Your task to perform on an android device: turn on wifi Image 0: 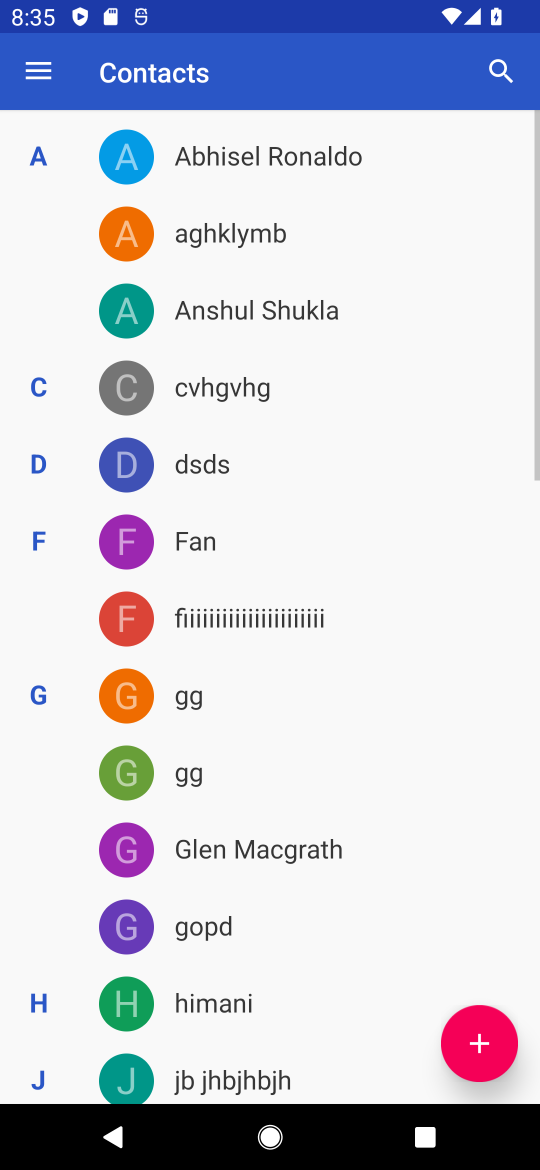
Step 0: press home button
Your task to perform on an android device: turn on wifi Image 1: 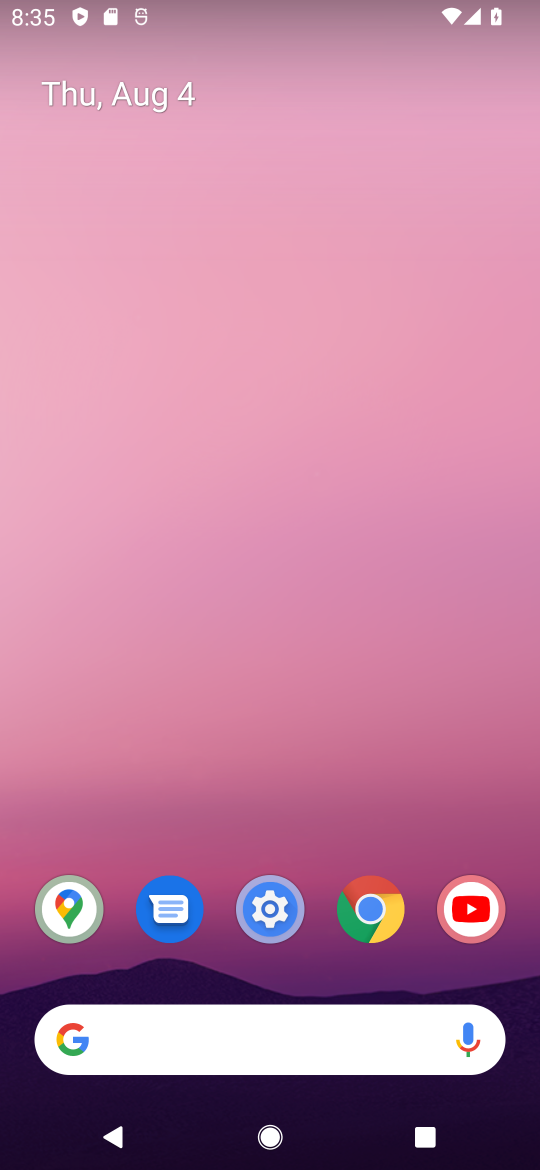
Step 1: drag from (287, 829) to (268, 185)
Your task to perform on an android device: turn on wifi Image 2: 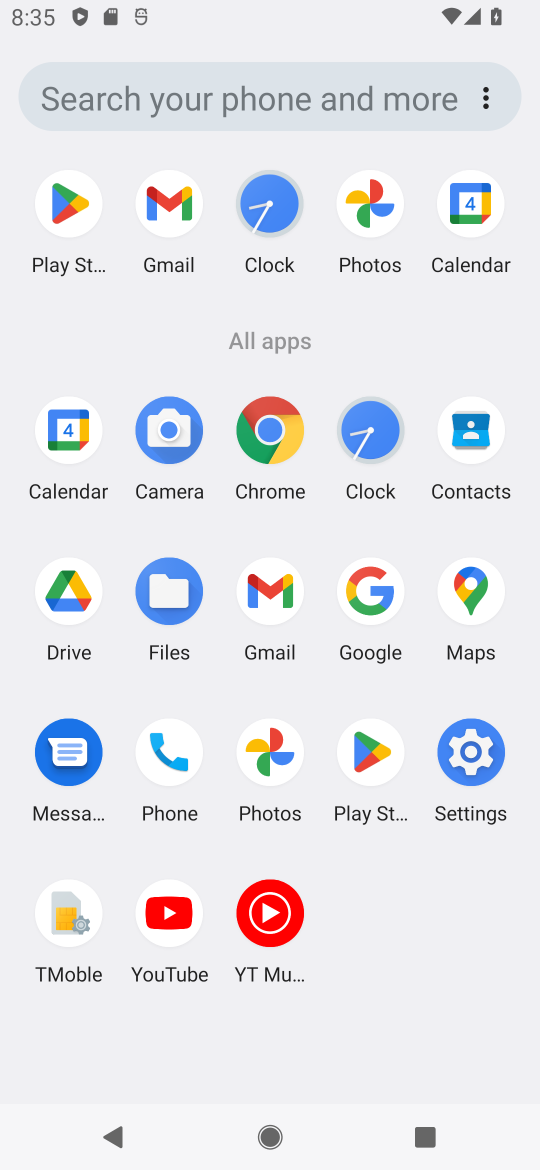
Step 2: click (471, 757)
Your task to perform on an android device: turn on wifi Image 3: 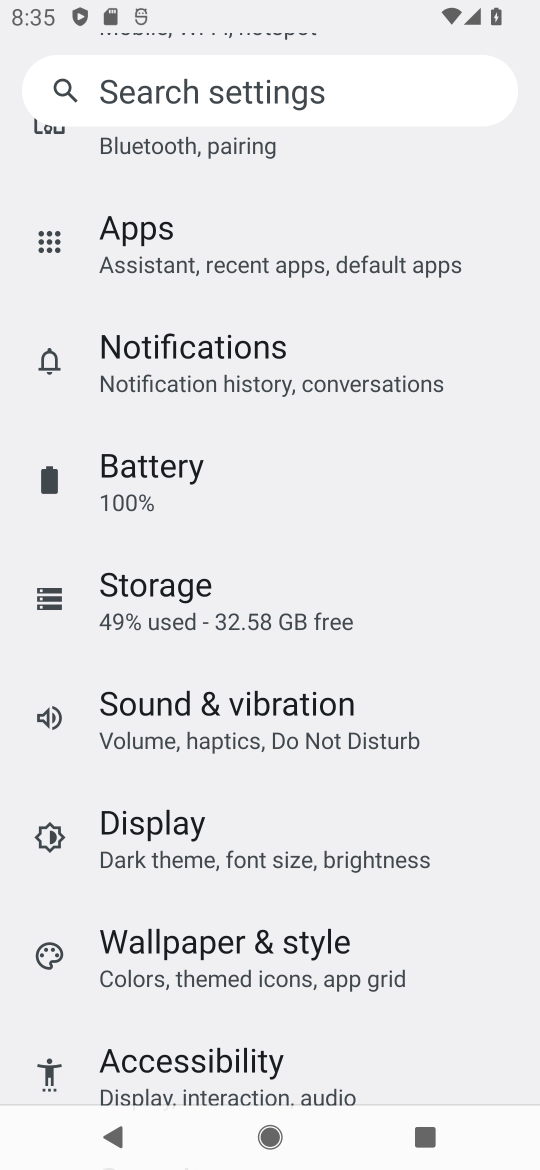
Step 3: drag from (461, 433) to (475, 660)
Your task to perform on an android device: turn on wifi Image 4: 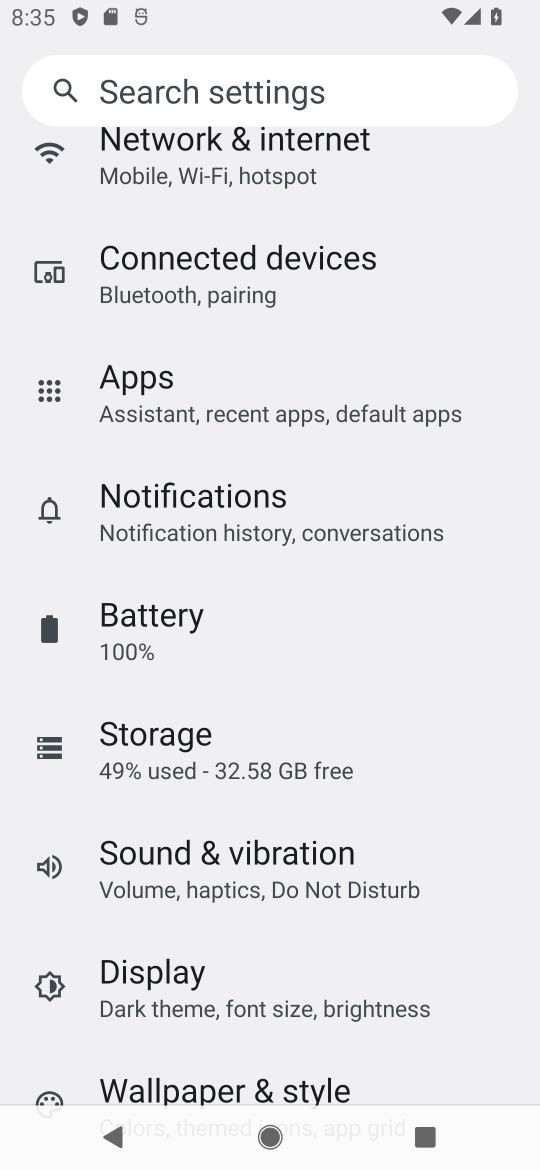
Step 4: drag from (487, 356) to (487, 535)
Your task to perform on an android device: turn on wifi Image 5: 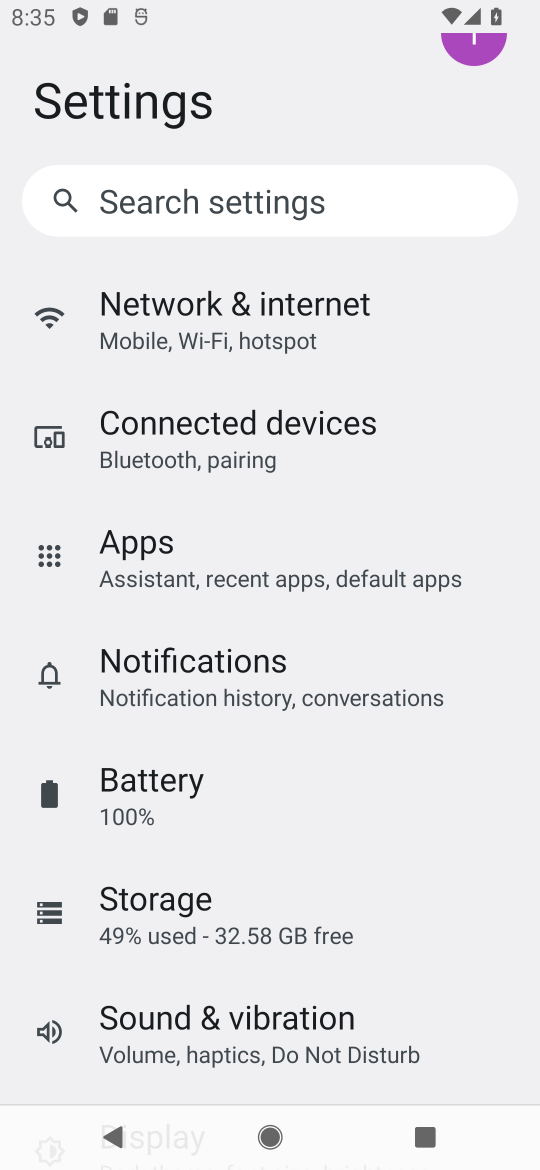
Step 5: drag from (486, 278) to (487, 655)
Your task to perform on an android device: turn on wifi Image 6: 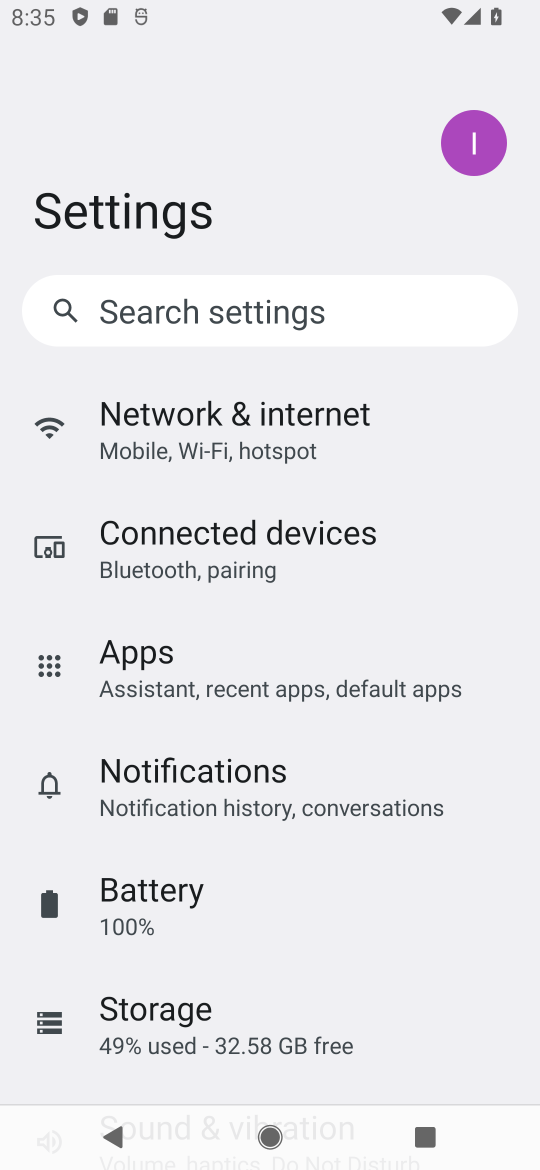
Step 6: click (317, 426)
Your task to perform on an android device: turn on wifi Image 7: 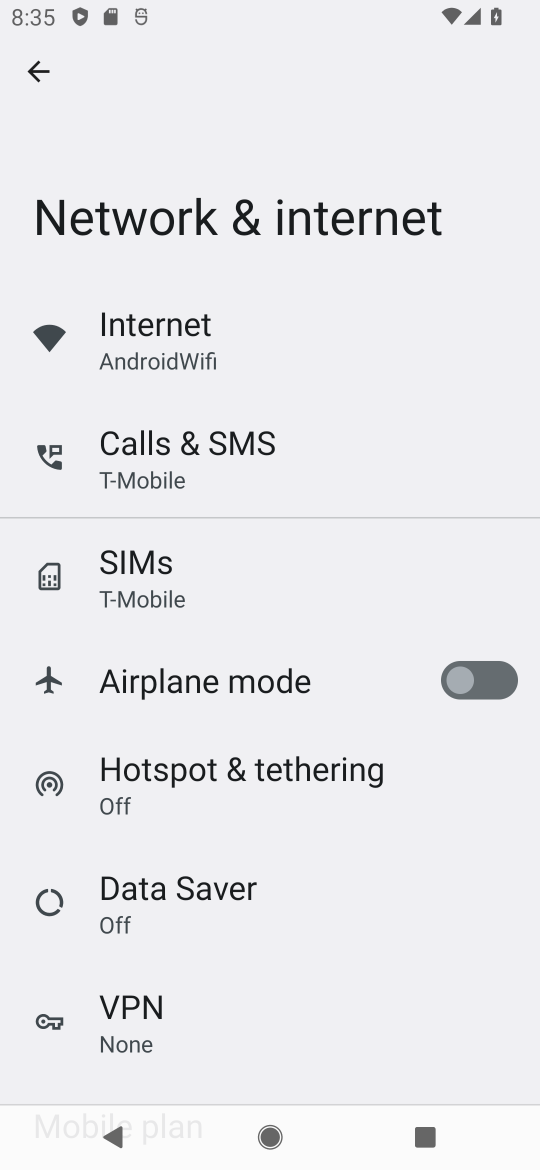
Step 7: click (211, 327)
Your task to perform on an android device: turn on wifi Image 8: 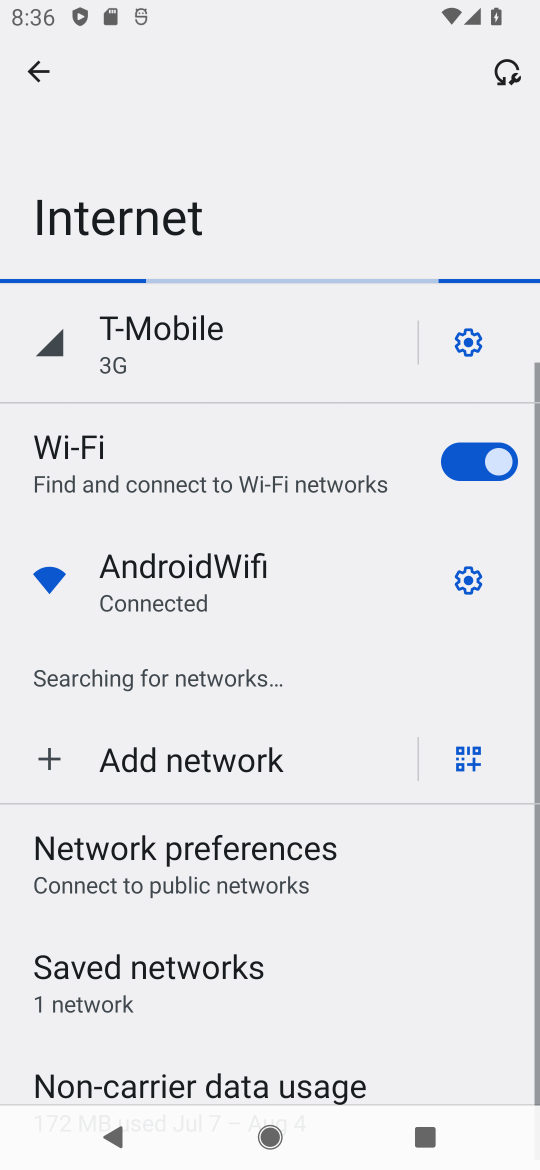
Step 8: task complete